Your task to perform on an android device: allow cookies in the chrome app Image 0: 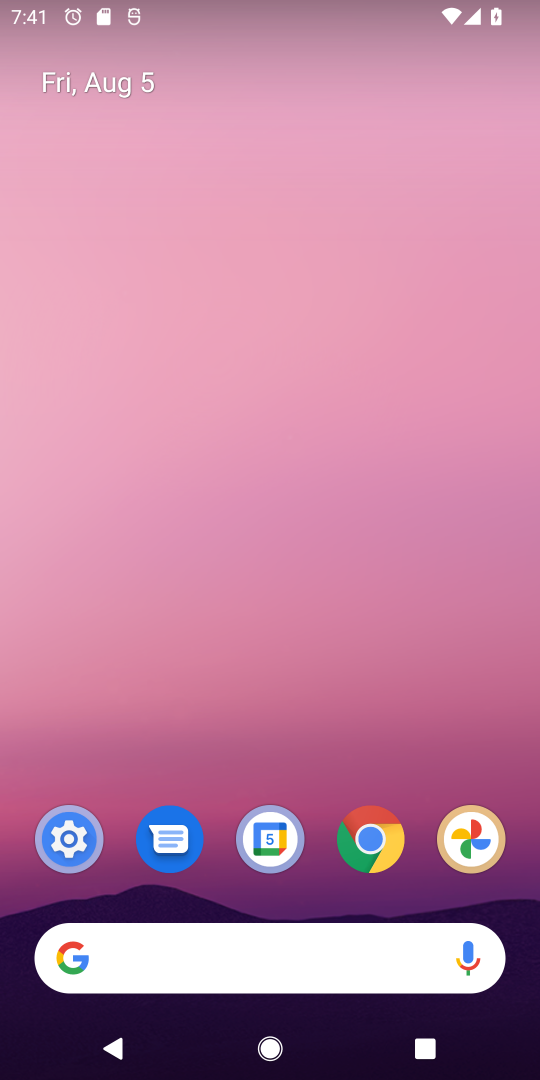
Step 0: click (360, 826)
Your task to perform on an android device: allow cookies in the chrome app Image 1: 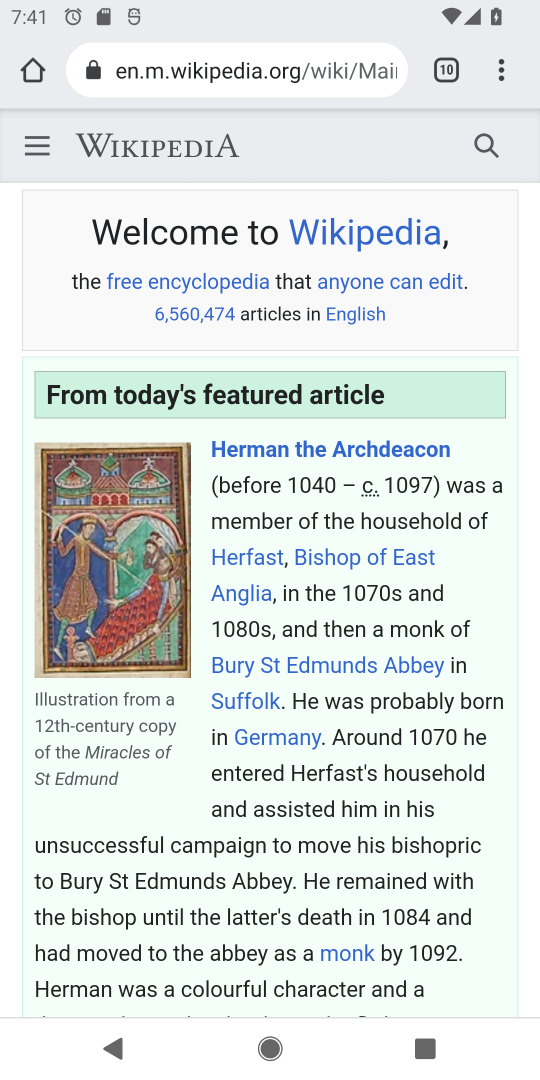
Step 1: click (505, 74)
Your task to perform on an android device: allow cookies in the chrome app Image 2: 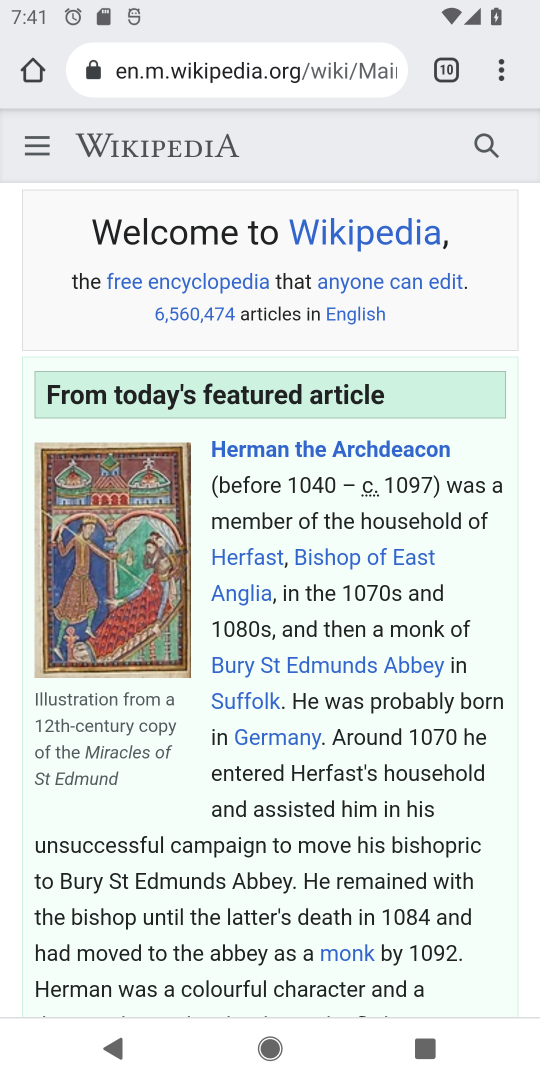
Step 2: click (505, 74)
Your task to perform on an android device: allow cookies in the chrome app Image 3: 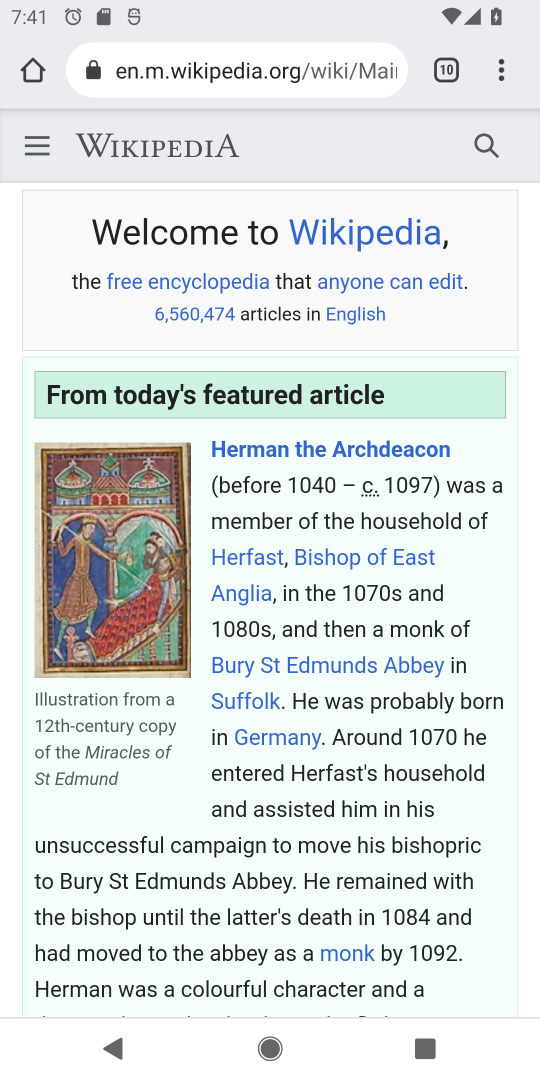
Step 3: drag from (495, 78) to (284, 857)
Your task to perform on an android device: allow cookies in the chrome app Image 4: 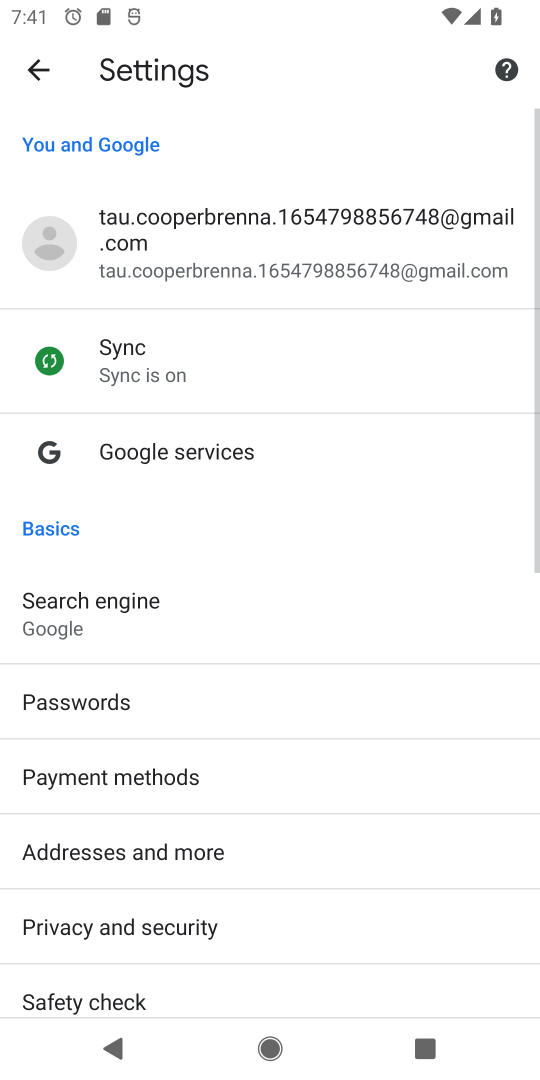
Step 4: drag from (222, 753) to (258, 358)
Your task to perform on an android device: allow cookies in the chrome app Image 5: 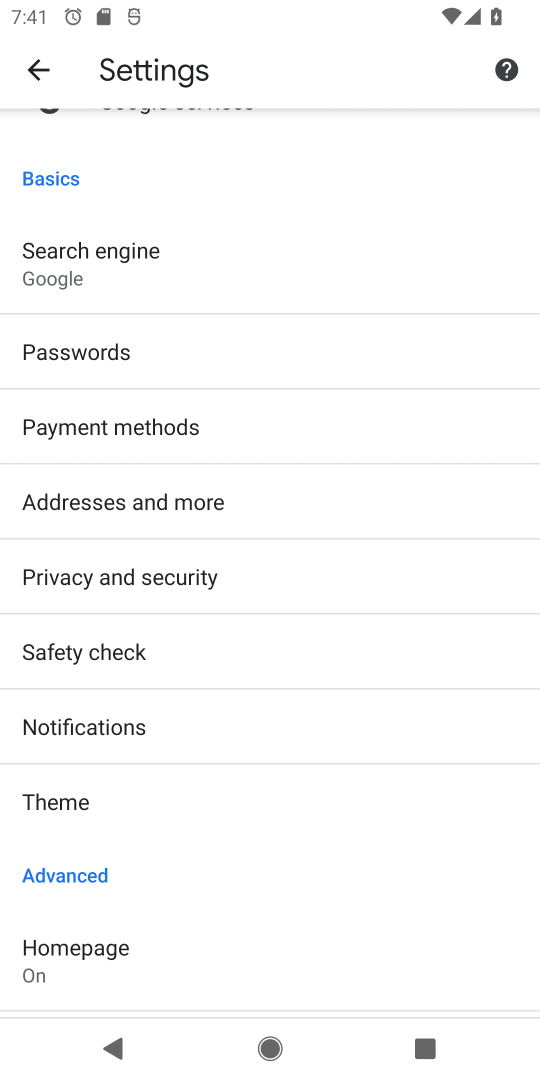
Step 5: drag from (173, 861) to (192, 541)
Your task to perform on an android device: allow cookies in the chrome app Image 6: 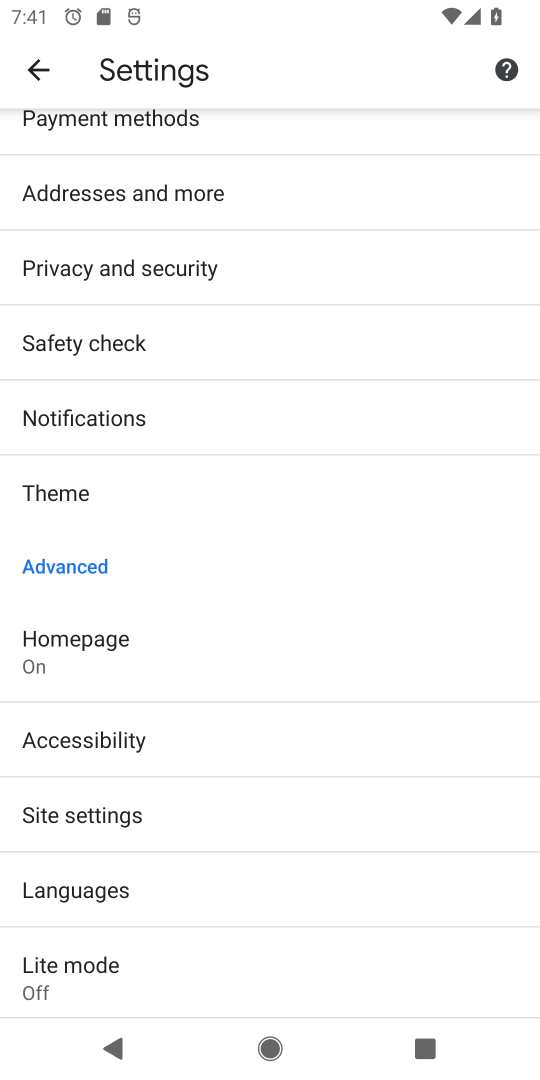
Step 6: click (143, 794)
Your task to perform on an android device: allow cookies in the chrome app Image 7: 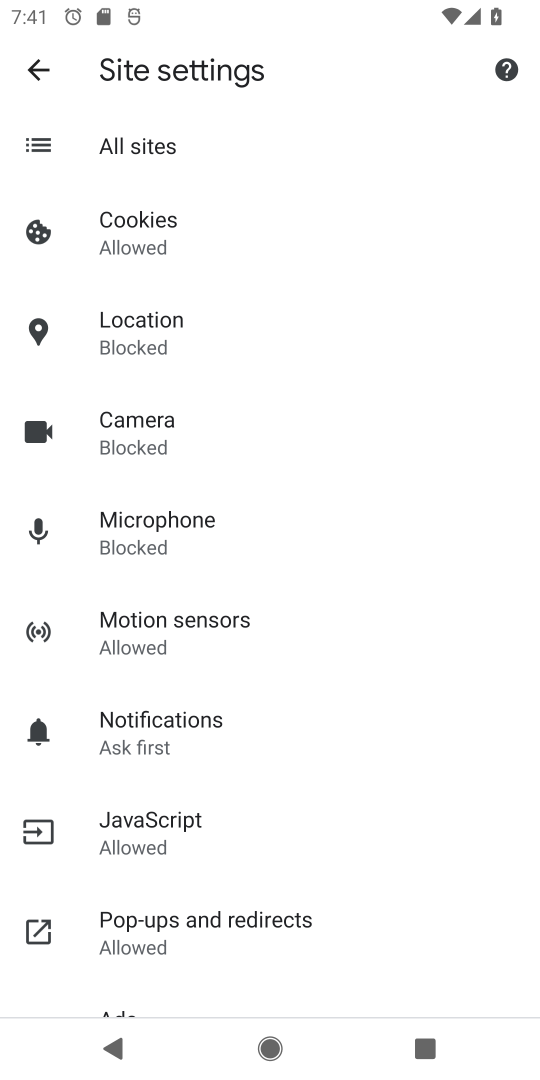
Step 7: click (251, 221)
Your task to perform on an android device: allow cookies in the chrome app Image 8: 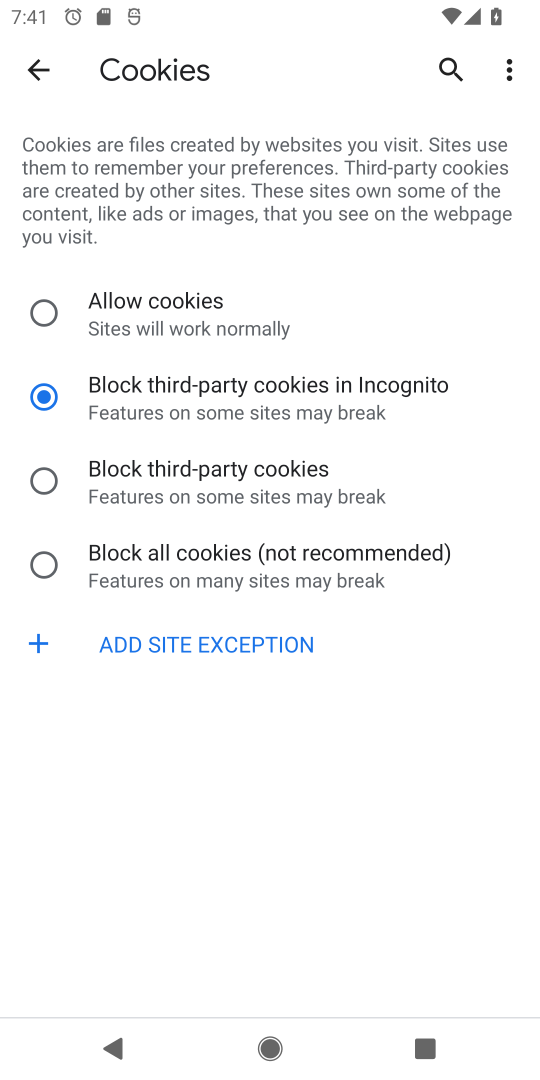
Step 8: click (157, 328)
Your task to perform on an android device: allow cookies in the chrome app Image 9: 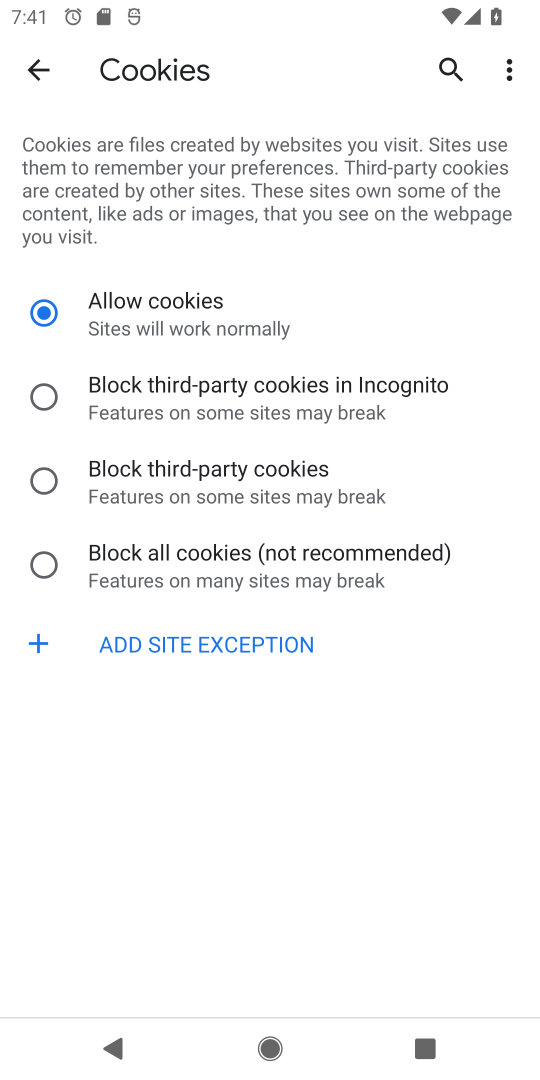
Step 9: task complete